Your task to perform on an android device: When is my next appointment? Image 0: 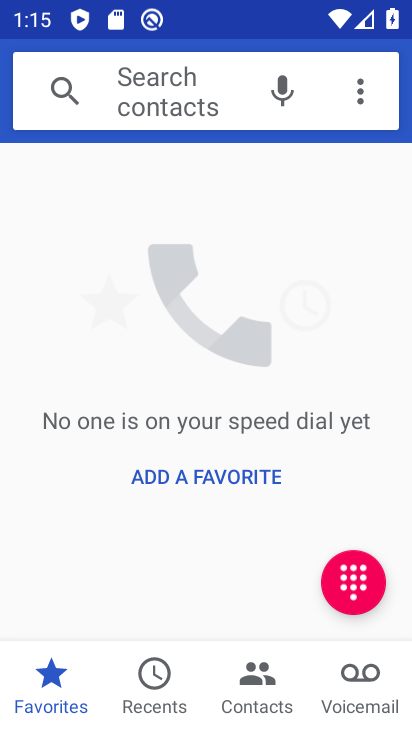
Step 0: press home button
Your task to perform on an android device: When is my next appointment? Image 1: 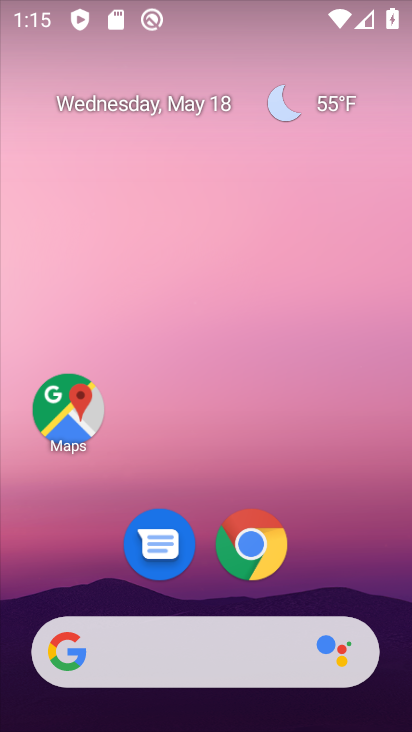
Step 1: click (189, 102)
Your task to perform on an android device: When is my next appointment? Image 2: 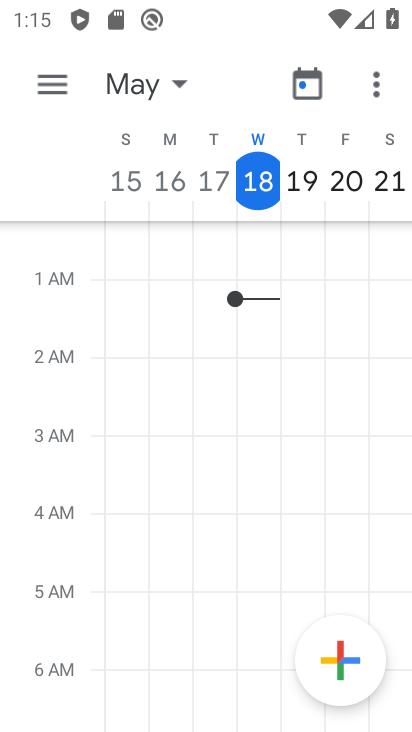
Step 2: click (44, 79)
Your task to perform on an android device: When is my next appointment? Image 3: 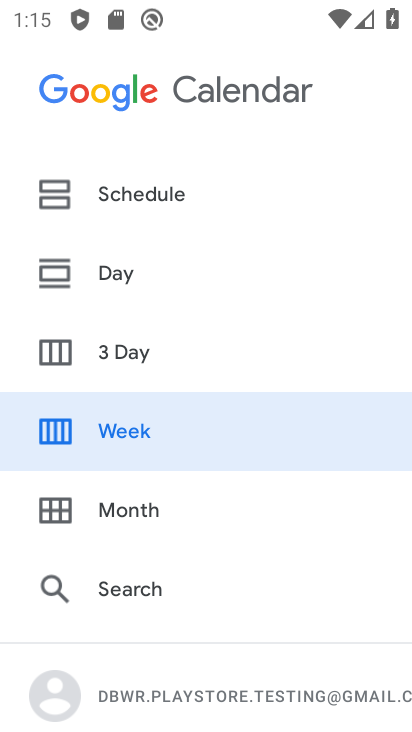
Step 3: click (132, 192)
Your task to perform on an android device: When is my next appointment? Image 4: 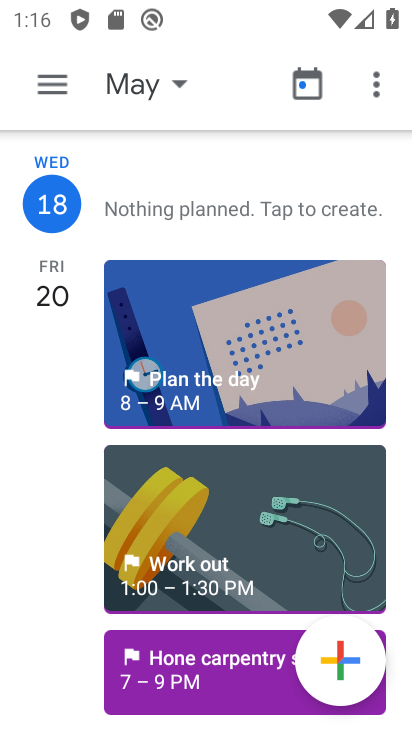
Step 4: click (51, 79)
Your task to perform on an android device: When is my next appointment? Image 5: 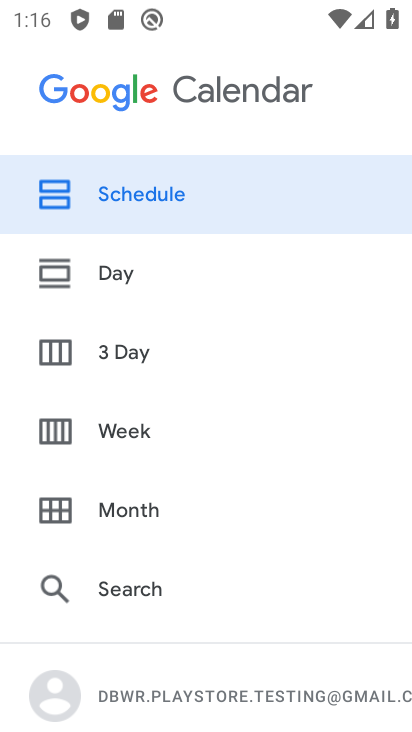
Step 5: drag from (190, 591) to (168, 262)
Your task to perform on an android device: When is my next appointment? Image 6: 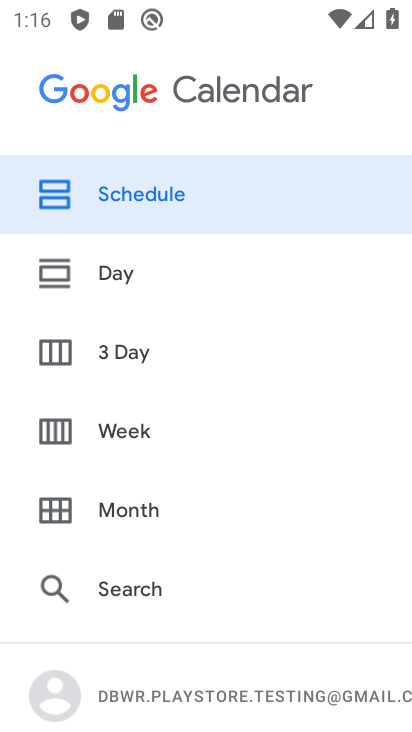
Step 6: drag from (214, 639) to (231, 383)
Your task to perform on an android device: When is my next appointment? Image 7: 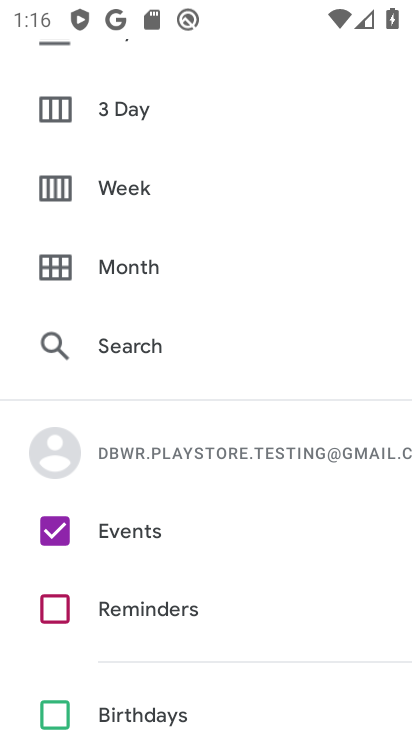
Step 7: drag from (238, 636) to (241, 212)
Your task to perform on an android device: When is my next appointment? Image 8: 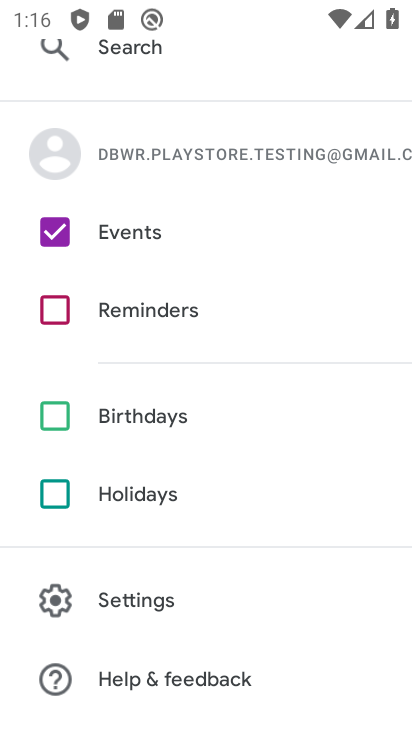
Step 8: click (53, 305)
Your task to perform on an android device: When is my next appointment? Image 9: 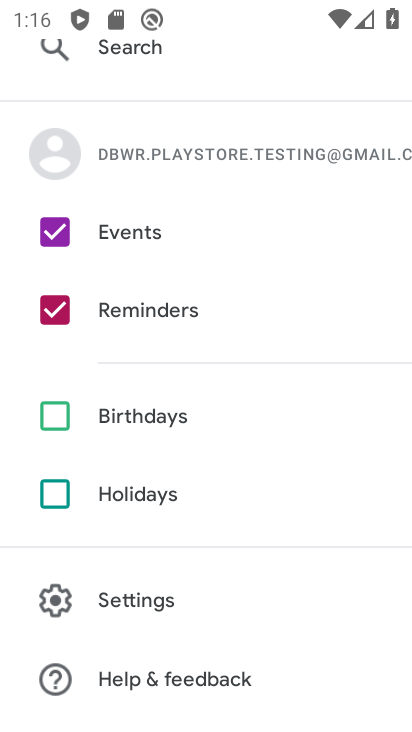
Step 9: click (59, 434)
Your task to perform on an android device: When is my next appointment? Image 10: 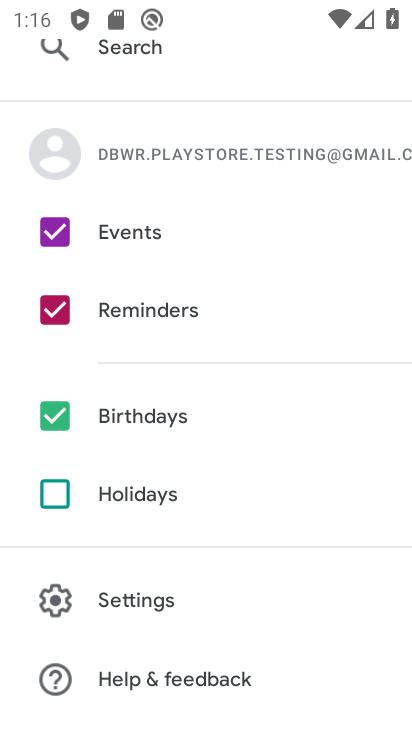
Step 10: click (54, 490)
Your task to perform on an android device: When is my next appointment? Image 11: 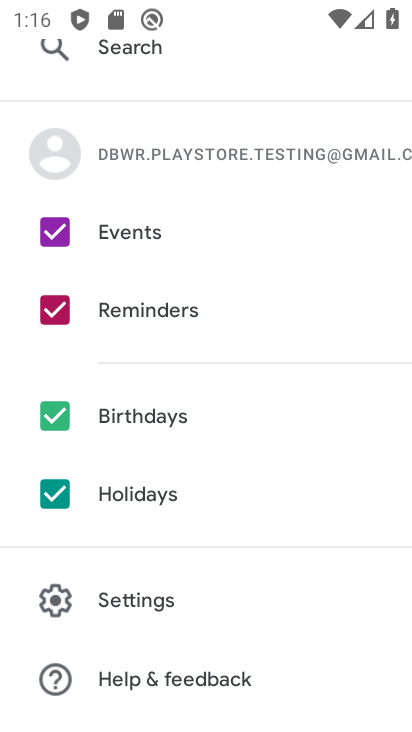
Step 11: drag from (270, 281) to (342, 719)
Your task to perform on an android device: When is my next appointment? Image 12: 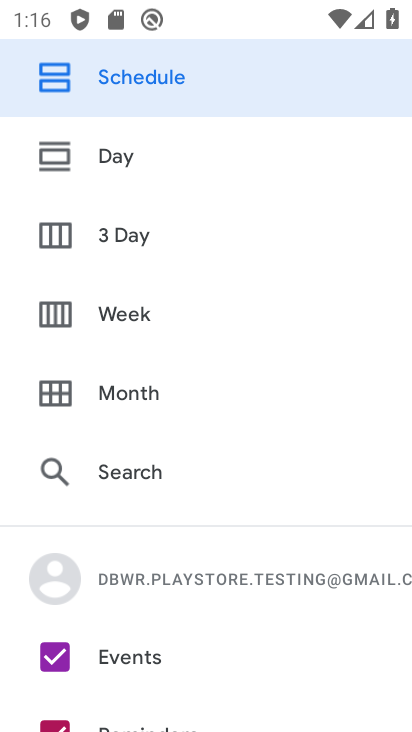
Step 12: click (218, 77)
Your task to perform on an android device: When is my next appointment? Image 13: 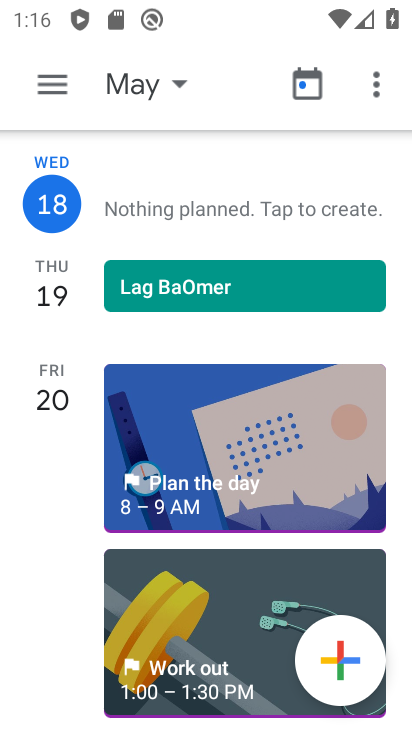
Step 13: task complete